Your task to perform on an android device: Open wifi settings Image 0: 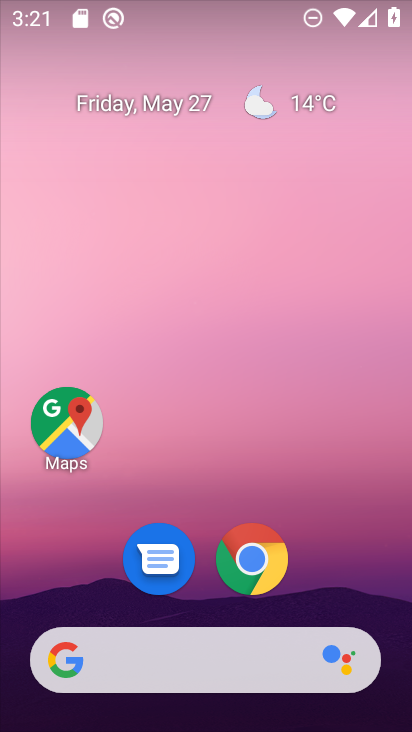
Step 0: drag from (341, 595) to (267, 43)
Your task to perform on an android device: Open wifi settings Image 1: 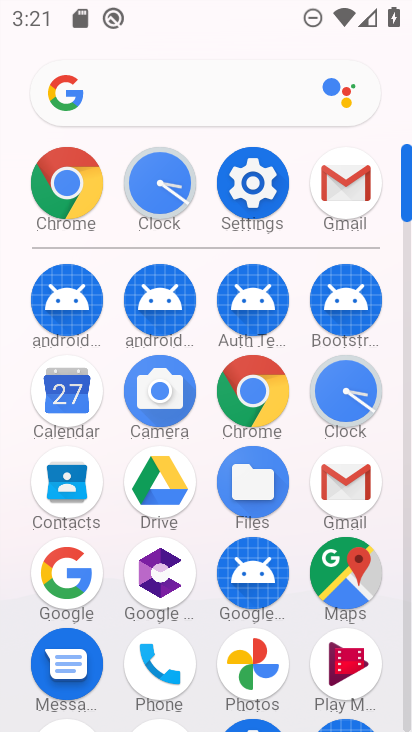
Step 1: click (262, 181)
Your task to perform on an android device: Open wifi settings Image 2: 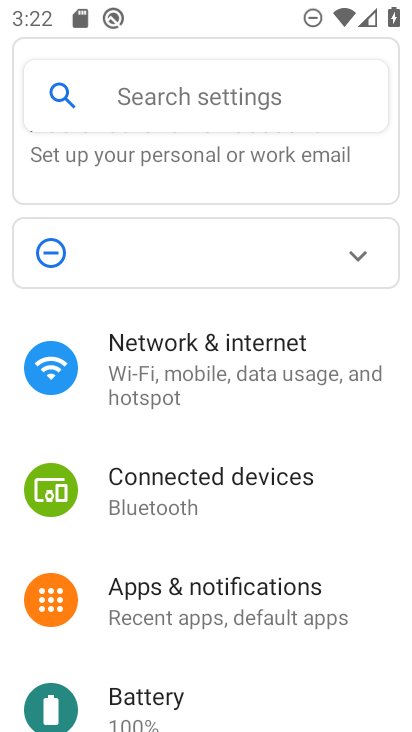
Step 2: click (267, 369)
Your task to perform on an android device: Open wifi settings Image 3: 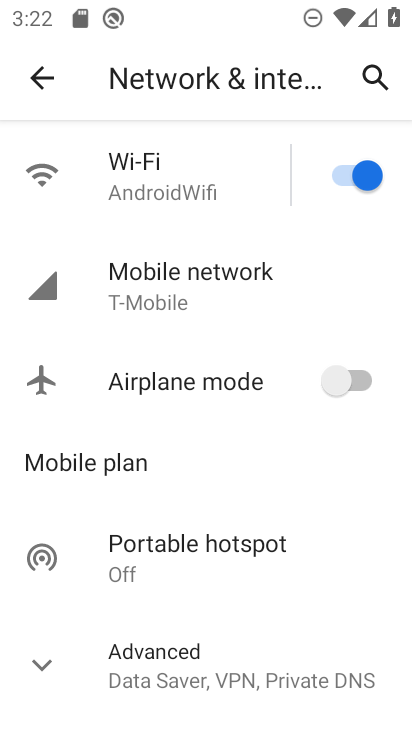
Step 3: click (156, 166)
Your task to perform on an android device: Open wifi settings Image 4: 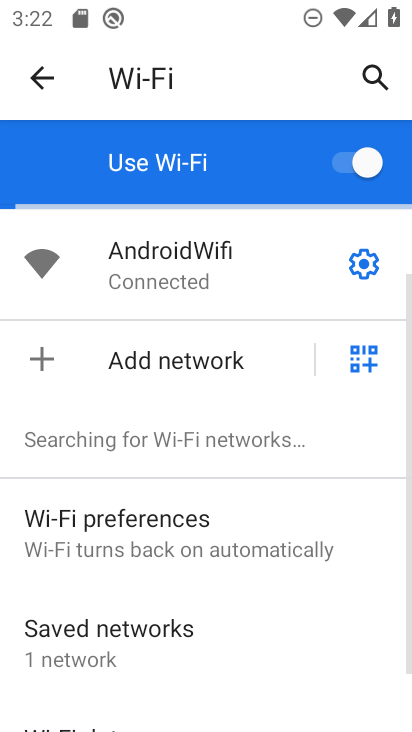
Step 4: task complete